Your task to perform on an android device: turn smart compose on in the gmail app Image 0: 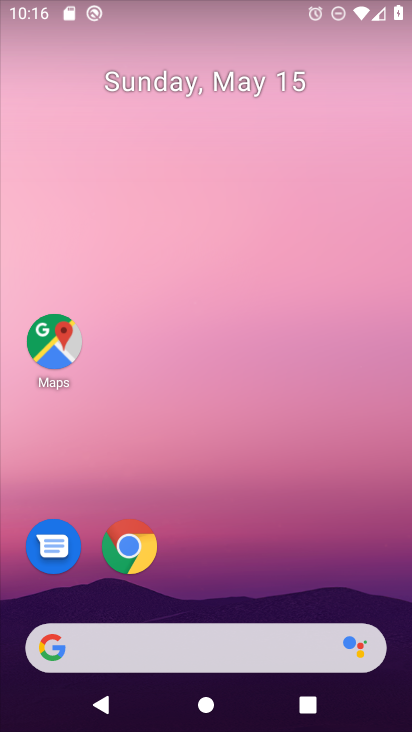
Step 0: drag from (291, 542) to (284, 186)
Your task to perform on an android device: turn smart compose on in the gmail app Image 1: 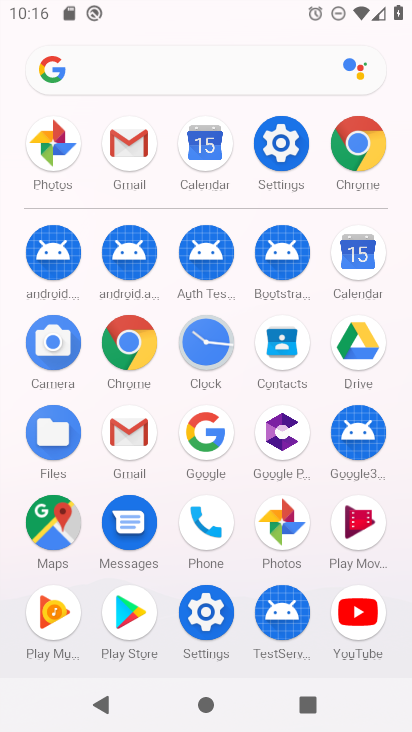
Step 1: click (130, 143)
Your task to perform on an android device: turn smart compose on in the gmail app Image 2: 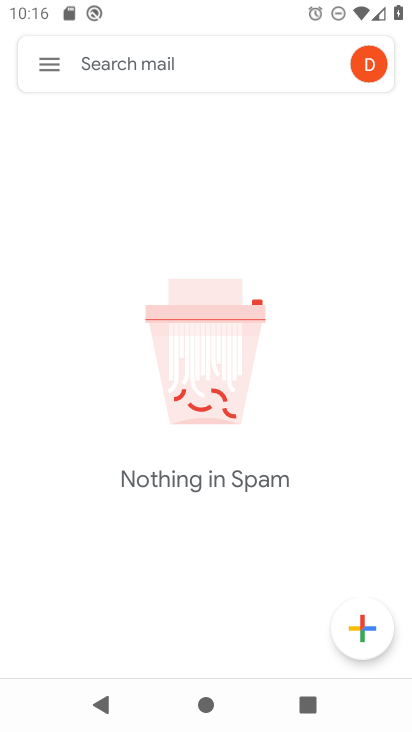
Step 2: click (50, 63)
Your task to perform on an android device: turn smart compose on in the gmail app Image 3: 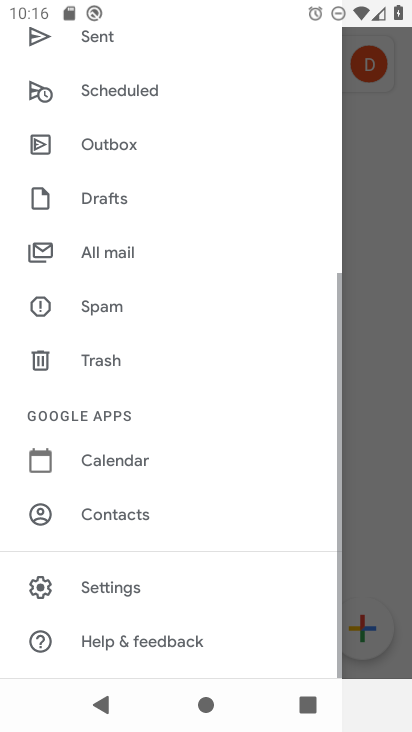
Step 3: drag from (139, 559) to (217, 276)
Your task to perform on an android device: turn smart compose on in the gmail app Image 4: 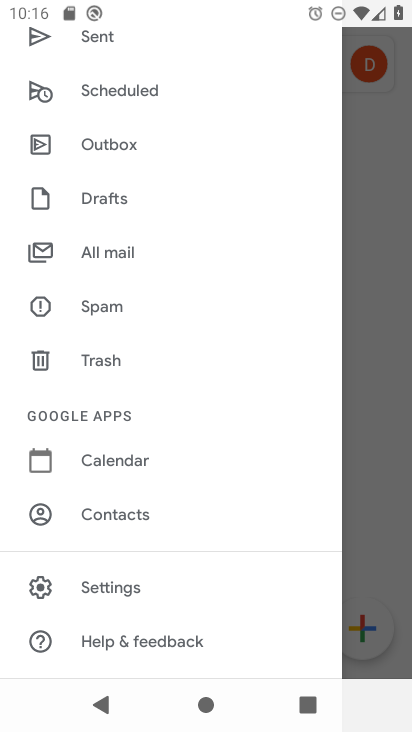
Step 4: click (111, 578)
Your task to perform on an android device: turn smart compose on in the gmail app Image 5: 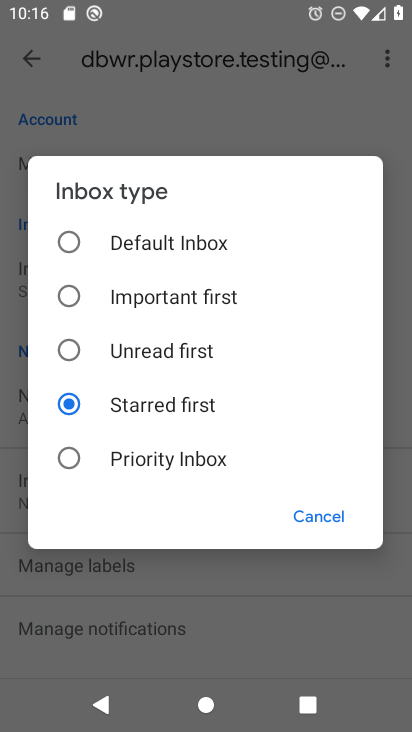
Step 5: click (325, 513)
Your task to perform on an android device: turn smart compose on in the gmail app Image 6: 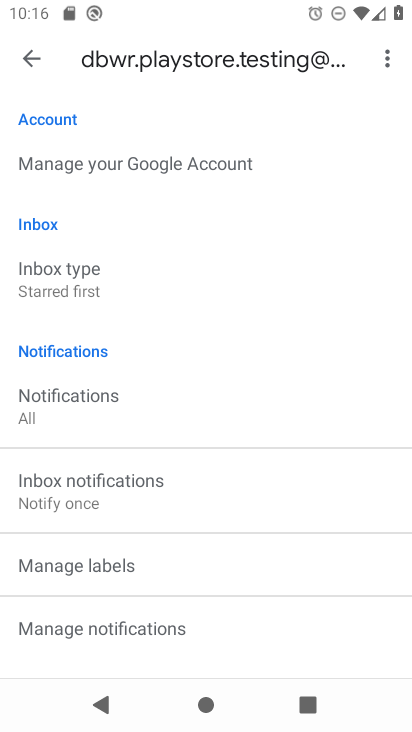
Step 6: task complete